Your task to perform on an android device: Go to ESPN.com Image 0: 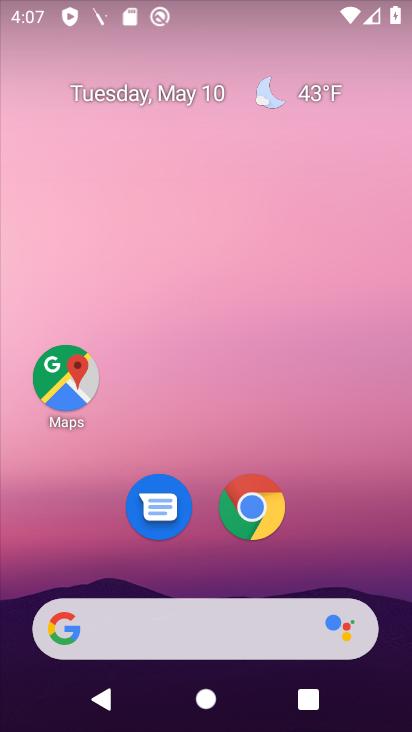
Step 0: click (265, 505)
Your task to perform on an android device: Go to ESPN.com Image 1: 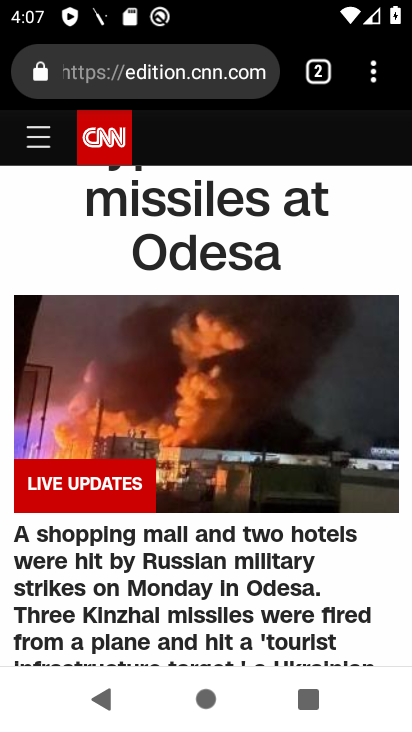
Step 1: click (371, 68)
Your task to perform on an android device: Go to ESPN.com Image 2: 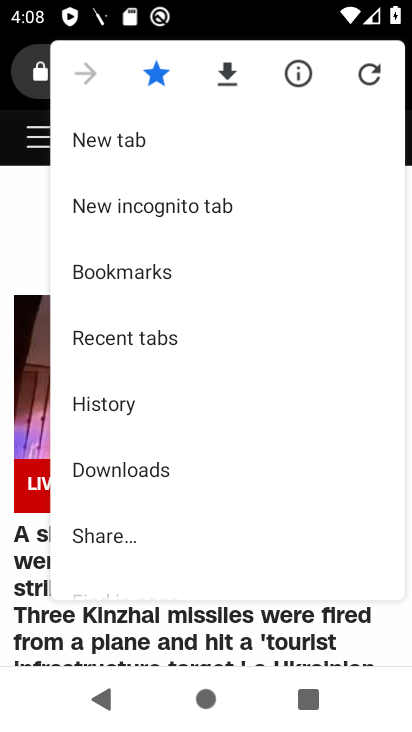
Step 2: click (90, 140)
Your task to perform on an android device: Go to ESPN.com Image 3: 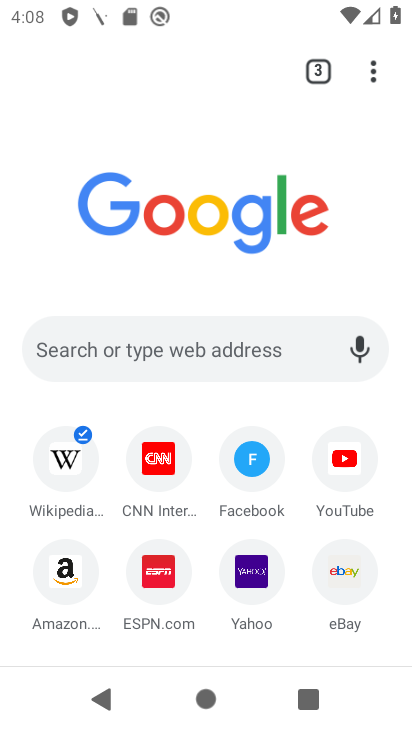
Step 3: click (154, 556)
Your task to perform on an android device: Go to ESPN.com Image 4: 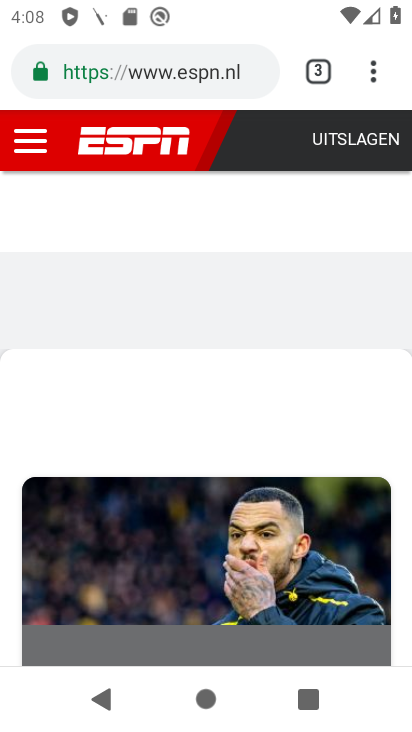
Step 4: task complete